Your task to perform on an android device: check android version Image 0: 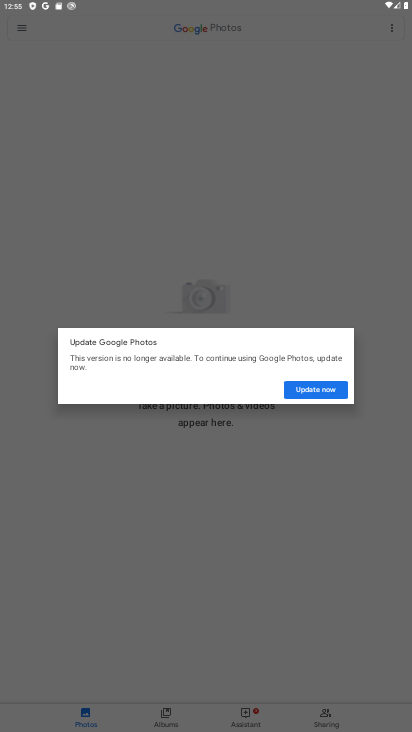
Step 0: press home button
Your task to perform on an android device: check android version Image 1: 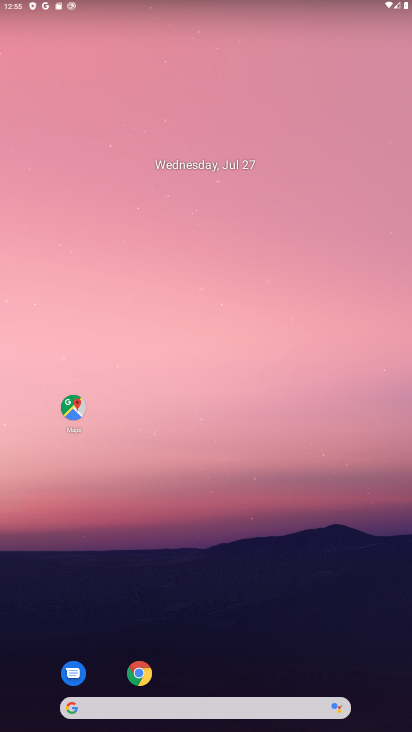
Step 1: drag from (202, 692) to (235, 34)
Your task to perform on an android device: check android version Image 2: 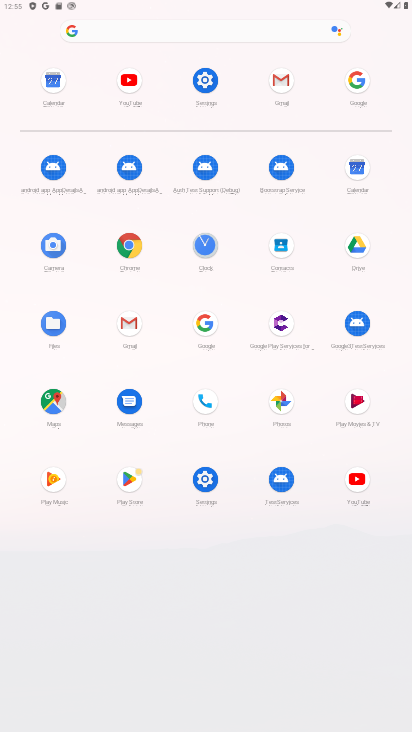
Step 2: click (209, 79)
Your task to perform on an android device: check android version Image 3: 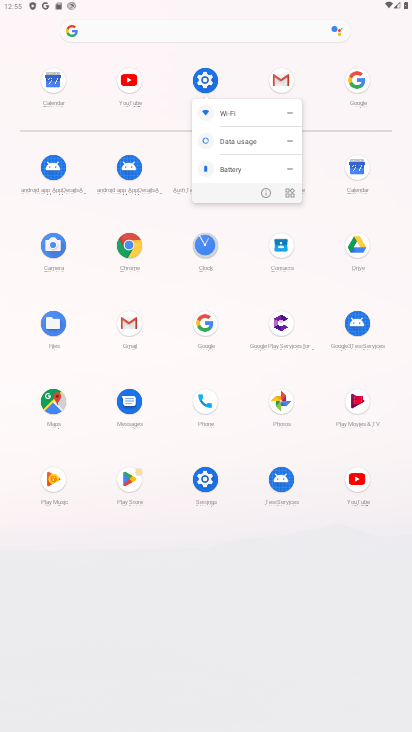
Step 3: click (209, 79)
Your task to perform on an android device: check android version Image 4: 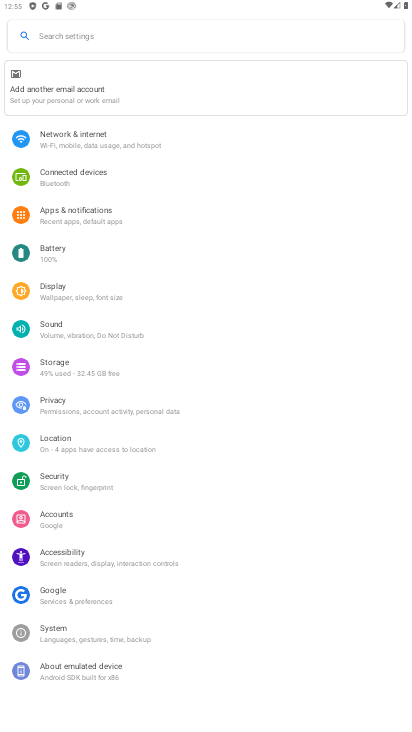
Step 4: click (77, 676)
Your task to perform on an android device: check android version Image 5: 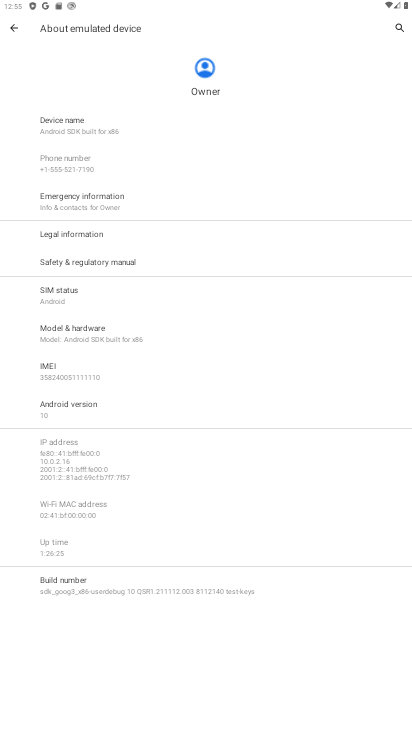
Step 5: click (46, 411)
Your task to perform on an android device: check android version Image 6: 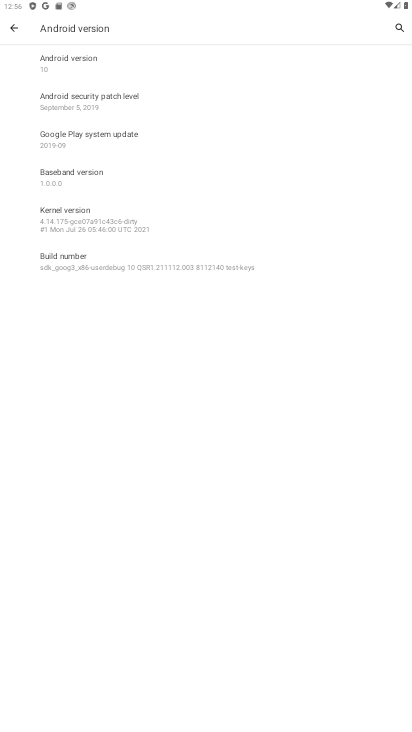
Step 6: task complete